Your task to perform on an android device: install app "Messages" Image 0: 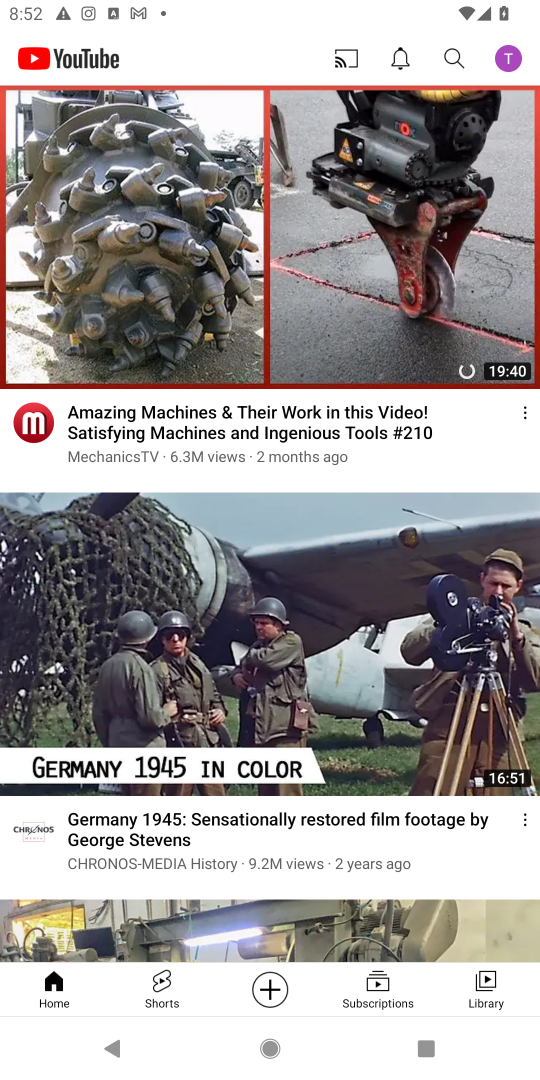
Step 0: press home button
Your task to perform on an android device: install app "Messages" Image 1: 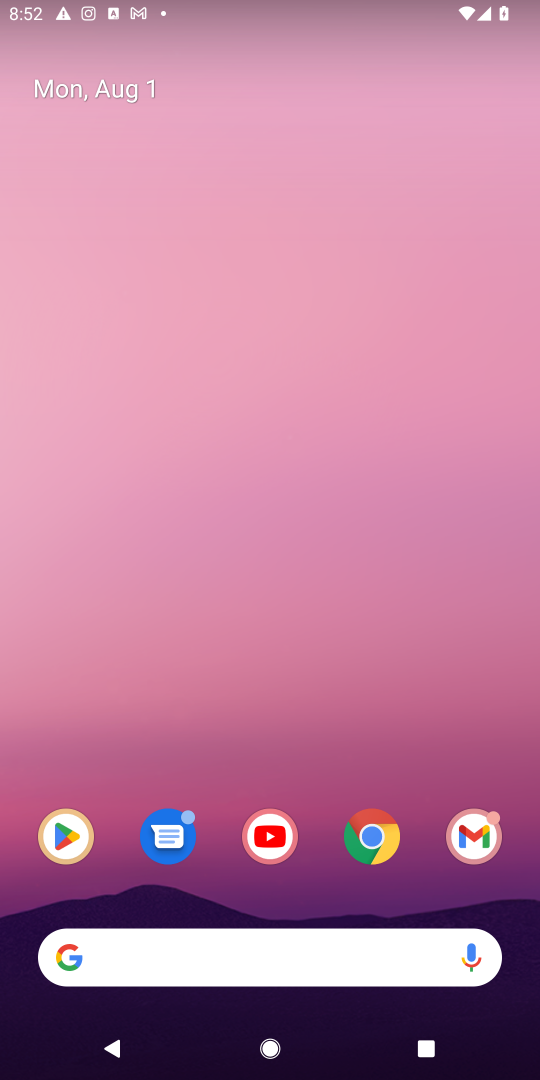
Step 1: click (66, 840)
Your task to perform on an android device: install app "Messages" Image 2: 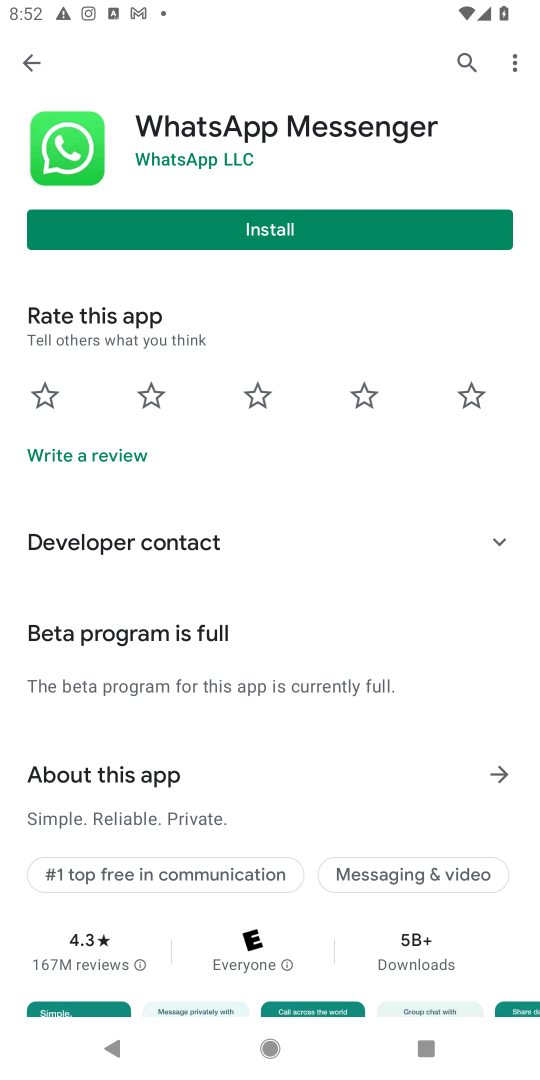
Step 2: click (461, 63)
Your task to perform on an android device: install app "Messages" Image 3: 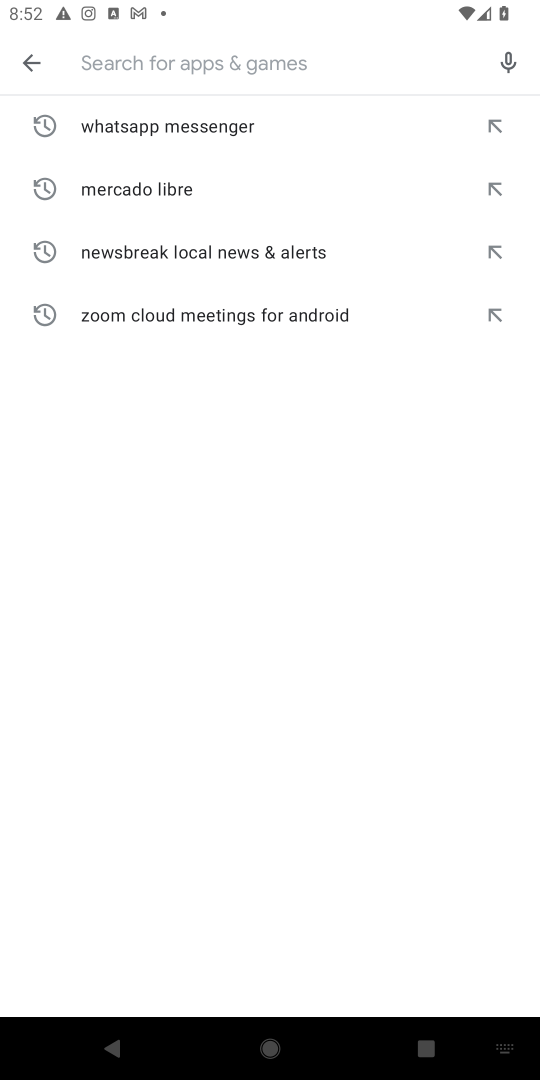
Step 3: type "Messages"
Your task to perform on an android device: install app "Messages" Image 4: 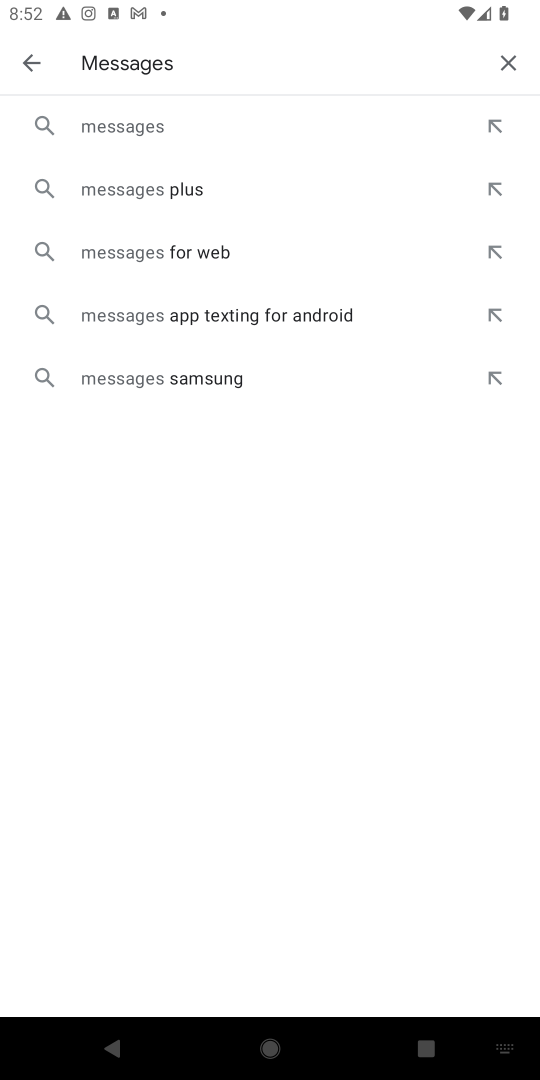
Step 4: click (139, 118)
Your task to perform on an android device: install app "Messages" Image 5: 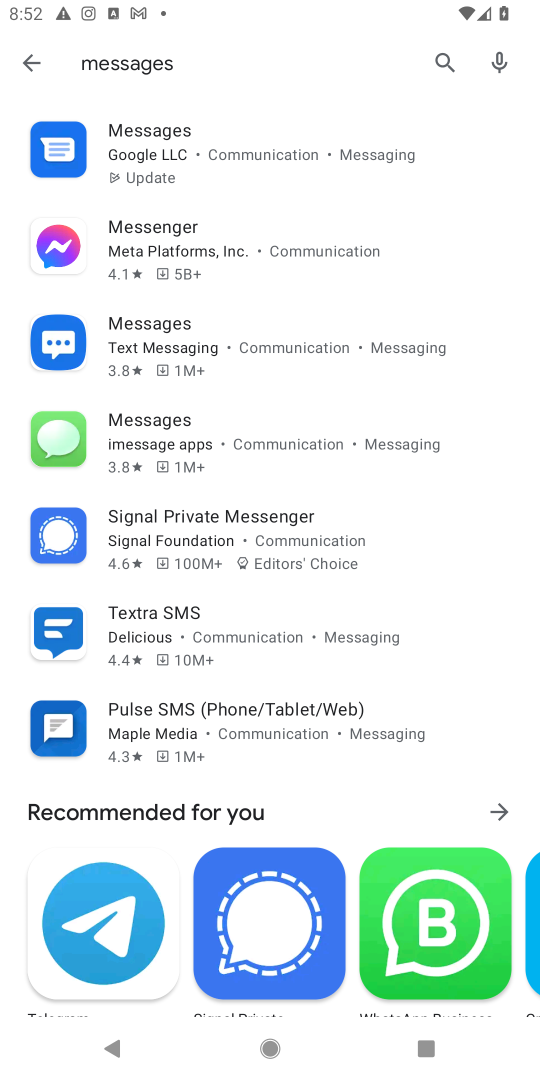
Step 5: click (193, 156)
Your task to perform on an android device: install app "Messages" Image 6: 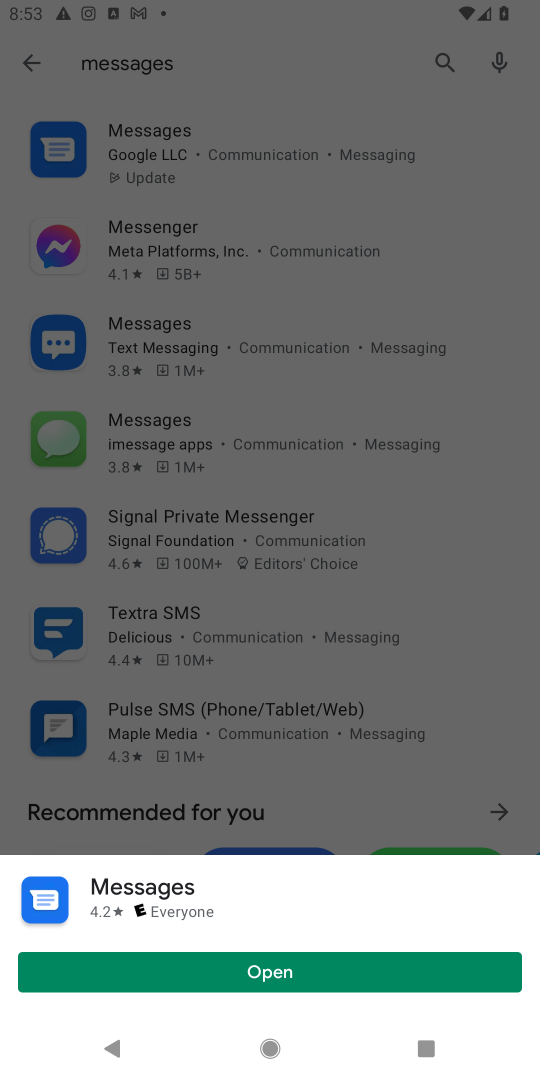
Step 6: task complete